Your task to perform on an android device: move a message to another label in the gmail app Image 0: 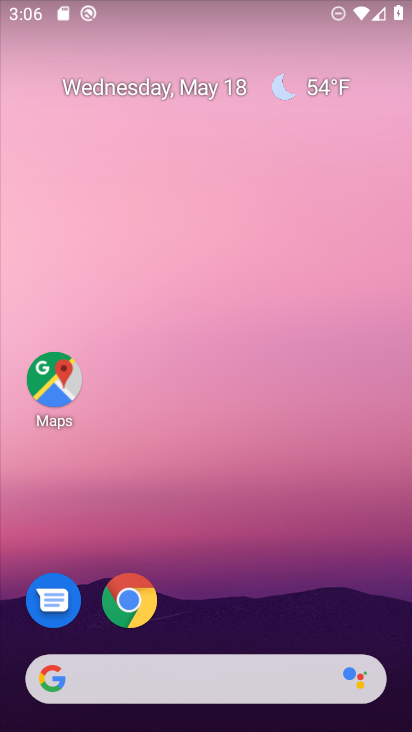
Step 0: drag from (213, 612) to (235, 167)
Your task to perform on an android device: move a message to another label in the gmail app Image 1: 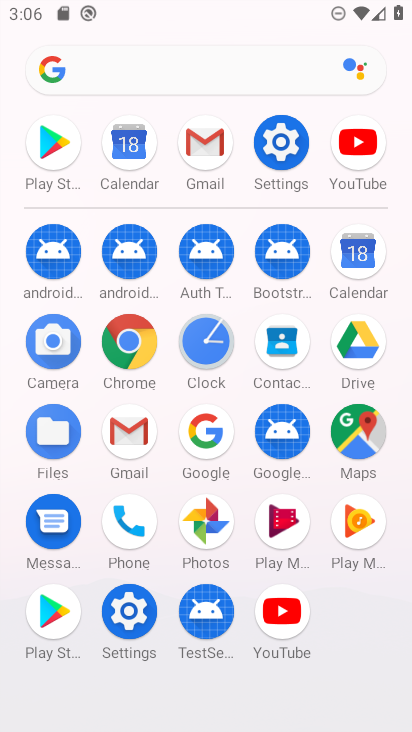
Step 1: click (137, 429)
Your task to perform on an android device: move a message to another label in the gmail app Image 2: 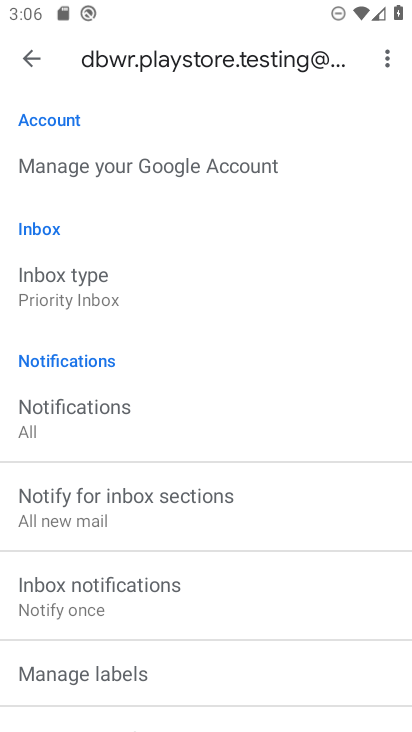
Step 2: click (33, 60)
Your task to perform on an android device: move a message to another label in the gmail app Image 3: 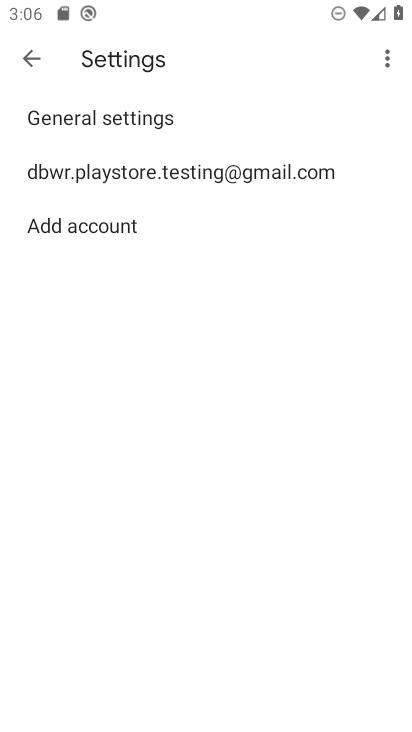
Step 3: click (32, 61)
Your task to perform on an android device: move a message to another label in the gmail app Image 4: 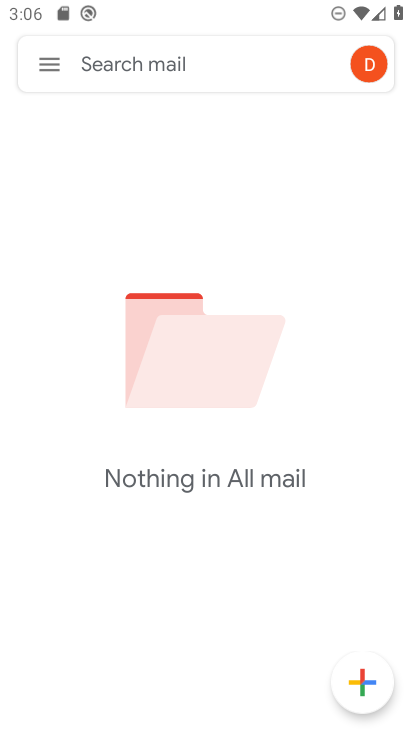
Step 4: click (33, 61)
Your task to perform on an android device: move a message to another label in the gmail app Image 5: 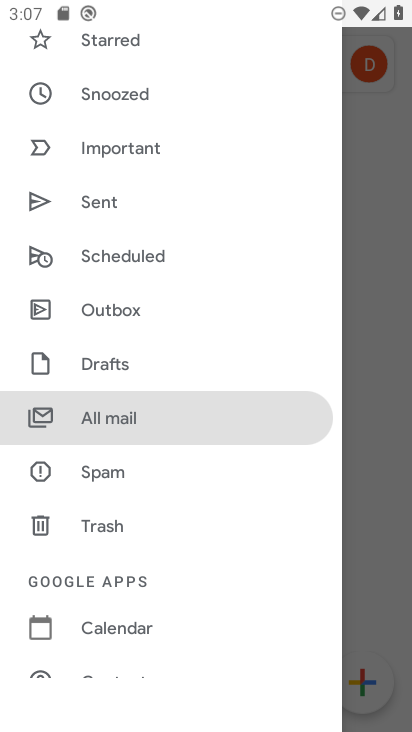
Step 5: click (109, 428)
Your task to perform on an android device: move a message to another label in the gmail app Image 6: 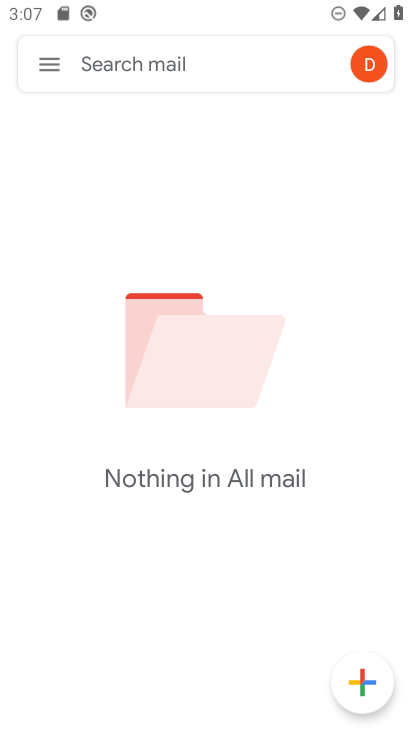
Step 6: task complete